Your task to perform on an android device: turn on javascript in the chrome app Image 0: 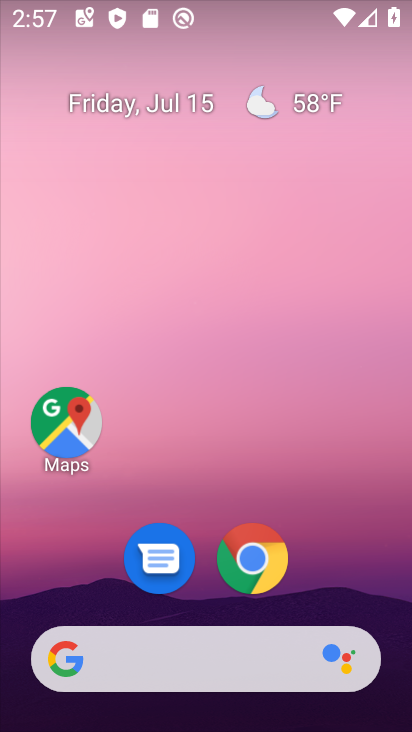
Step 0: drag from (374, 594) to (357, 145)
Your task to perform on an android device: turn on javascript in the chrome app Image 1: 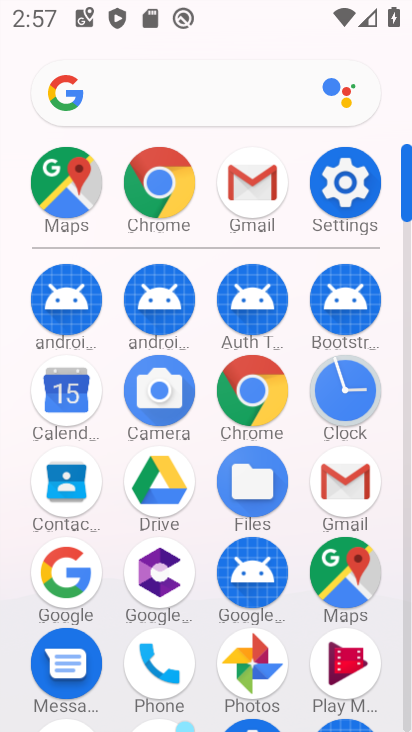
Step 1: click (256, 387)
Your task to perform on an android device: turn on javascript in the chrome app Image 2: 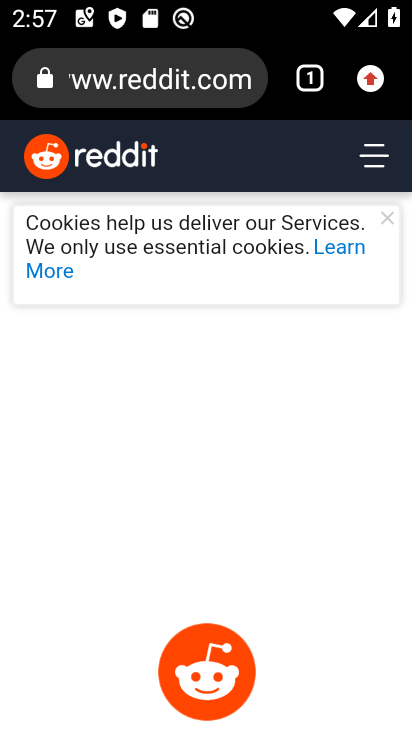
Step 2: click (371, 82)
Your task to perform on an android device: turn on javascript in the chrome app Image 3: 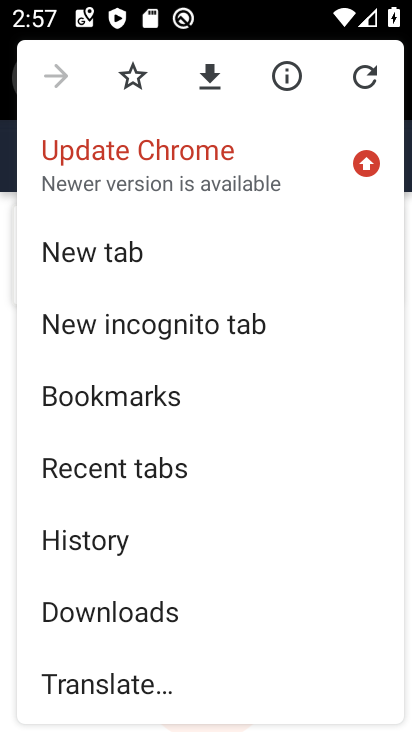
Step 3: drag from (285, 436) to (301, 355)
Your task to perform on an android device: turn on javascript in the chrome app Image 4: 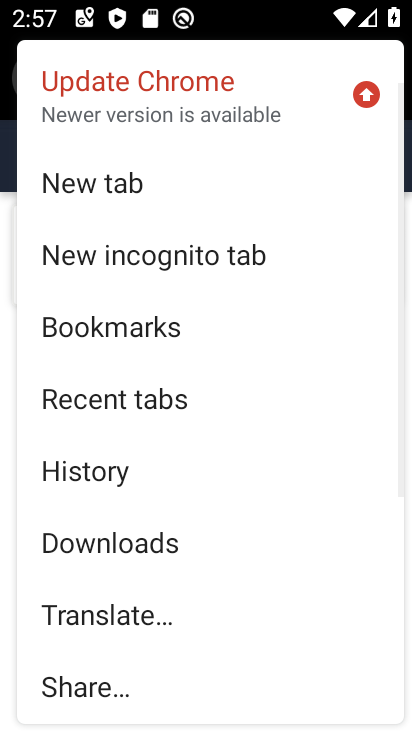
Step 4: drag from (311, 431) to (318, 353)
Your task to perform on an android device: turn on javascript in the chrome app Image 5: 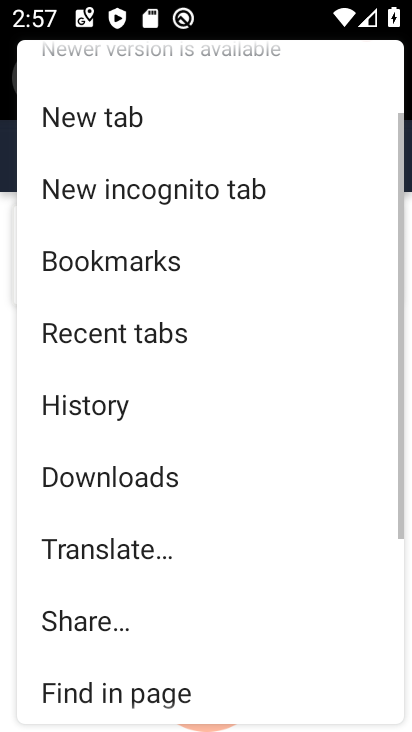
Step 5: drag from (304, 453) to (308, 356)
Your task to perform on an android device: turn on javascript in the chrome app Image 6: 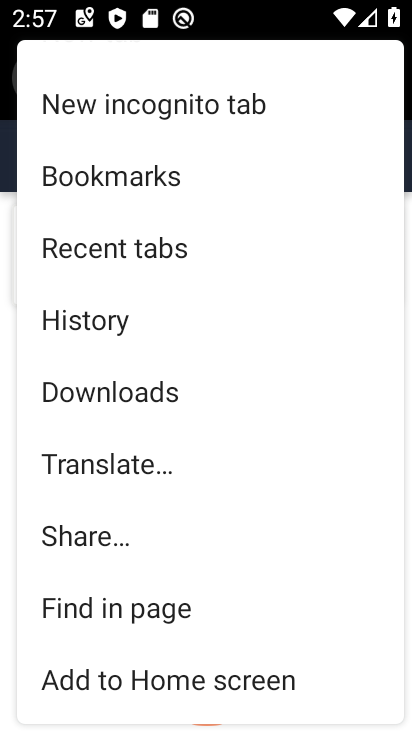
Step 6: drag from (313, 450) to (313, 353)
Your task to perform on an android device: turn on javascript in the chrome app Image 7: 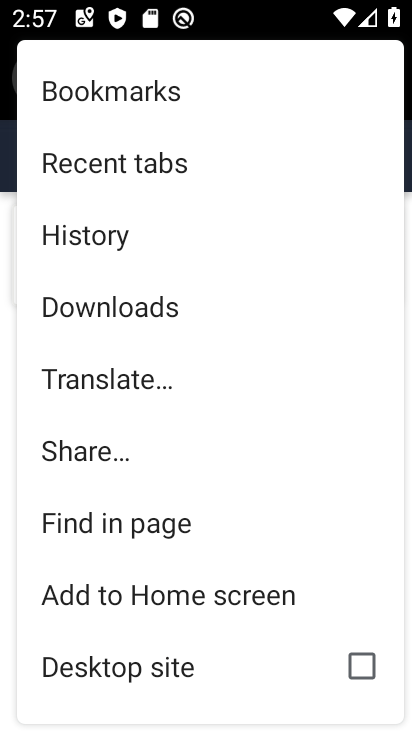
Step 7: drag from (304, 465) to (310, 387)
Your task to perform on an android device: turn on javascript in the chrome app Image 8: 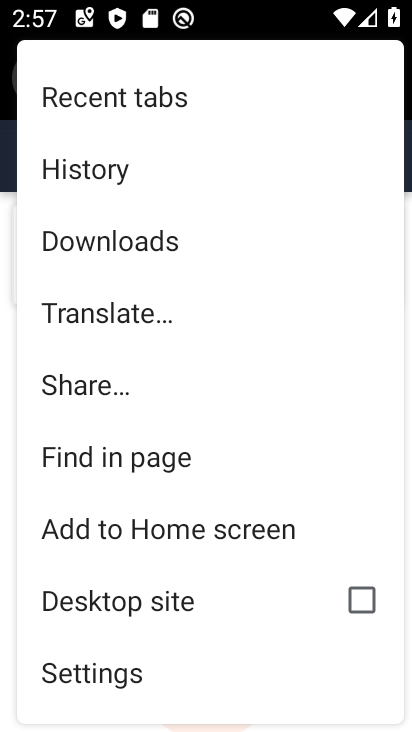
Step 8: drag from (308, 560) to (309, 423)
Your task to perform on an android device: turn on javascript in the chrome app Image 9: 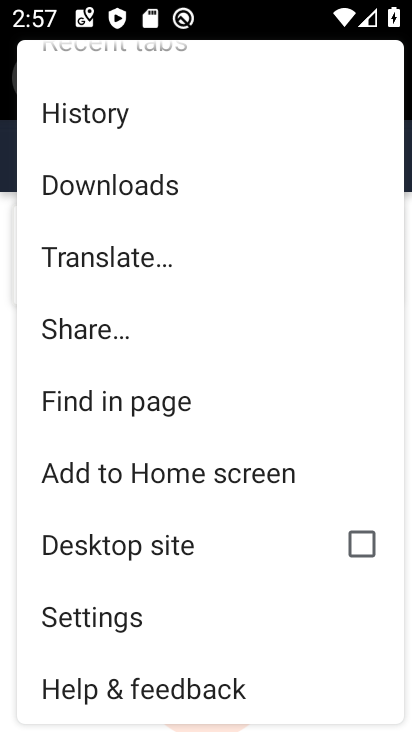
Step 9: click (183, 614)
Your task to perform on an android device: turn on javascript in the chrome app Image 10: 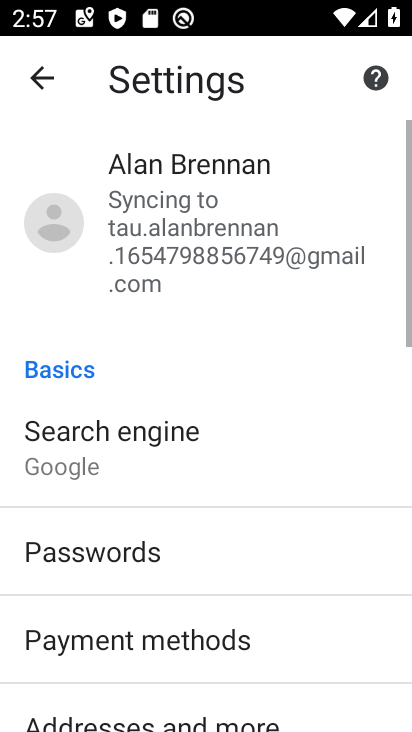
Step 10: drag from (314, 566) to (327, 493)
Your task to perform on an android device: turn on javascript in the chrome app Image 11: 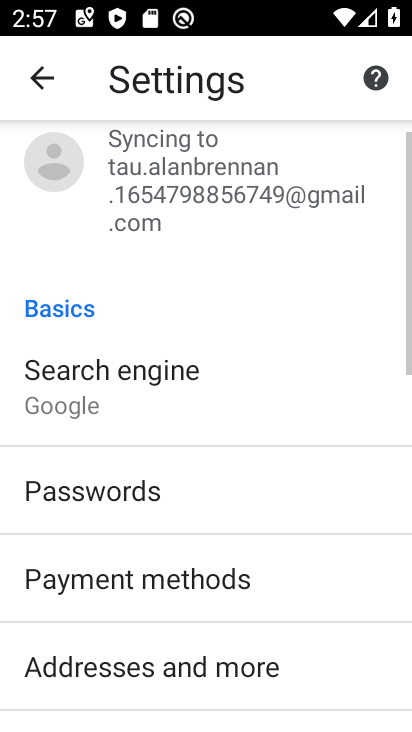
Step 11: drag from (325, 591) to (338, 506)
Your task to perform on an android device: turn on javascript in the chrome app Image 12: 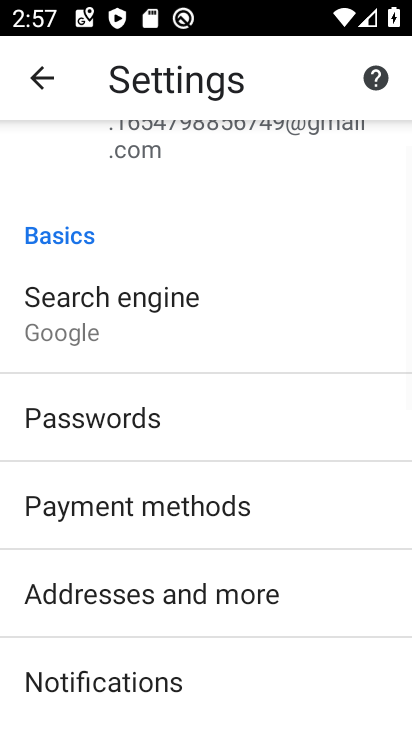
Step 12: drag from (339, 593) to (343, 514)
Your task to perform on an android device: turn on javascript in the chrome app Image 13: 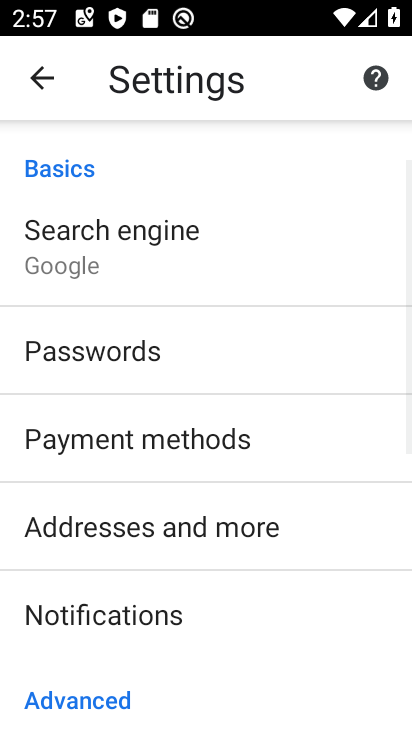
Step 13: drag from (345, 599) to (349, 506)
Your task to perform on an android device: turn on javascript in the chrome app Image 14: 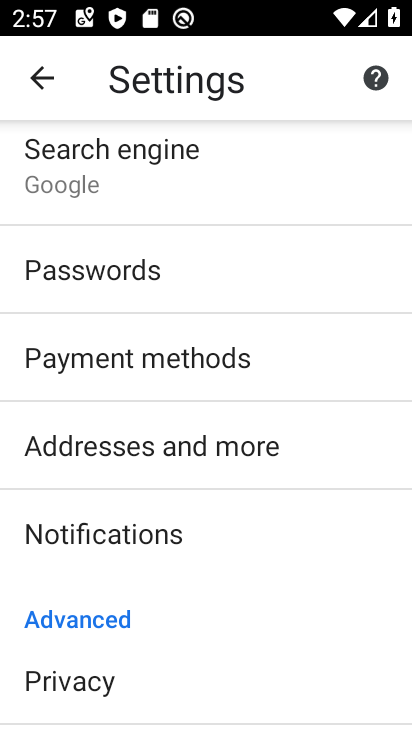
Step 14: drag from (338, 593) to (338, 497)
Your task to perform on an android device: turn on javascript in the chrome app Image 15: 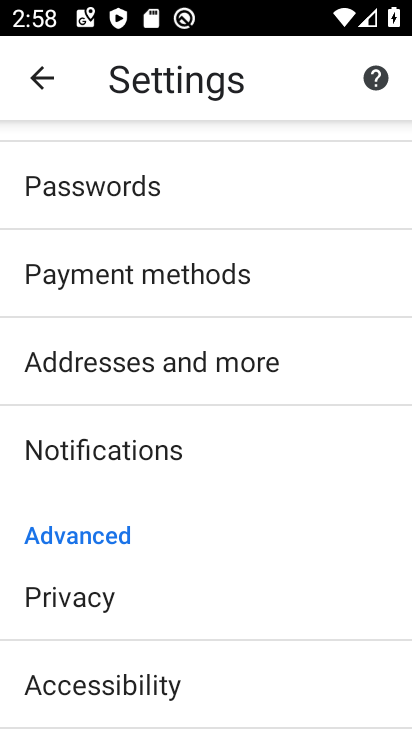
Step 15: drag from (333, 571) to (342, 468)
Your task to perform on an android device: turn on javascript in the chrome app Image 16: 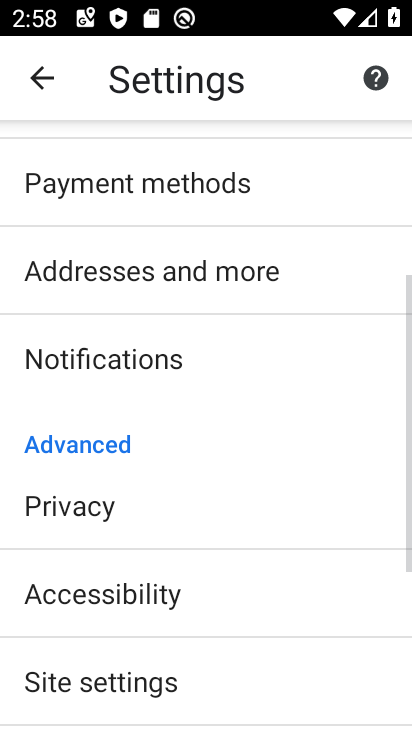
Step 16: drag from (331, 580) to (330, 468)
Your task to perform on an android device: turn on javascript in the chrome app Image 17: 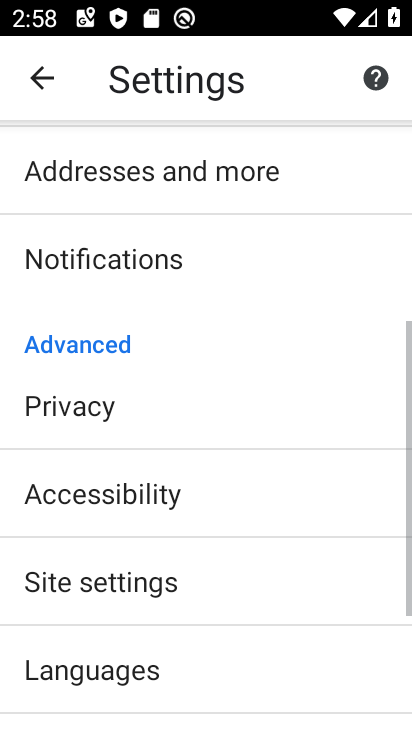
Step 17: click (312, 589)
Your task to perform on an android device: turn on javascript in the chrome app Image 18: 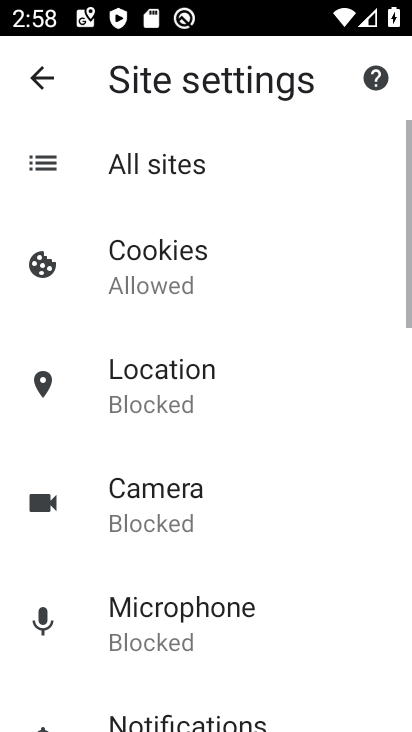
Step 18: drag from (312, 589) to (333, 493)
Your task to perform on an android device: turn on javascript in the chrome app Image 19: 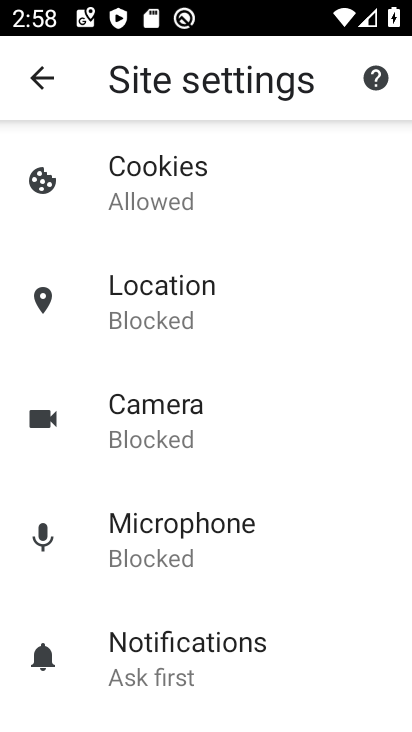
Step 19: drag from (327, 625) to (335, 499)
Your task to perform on an android device: turn on javascript in the chrome app Image 20: 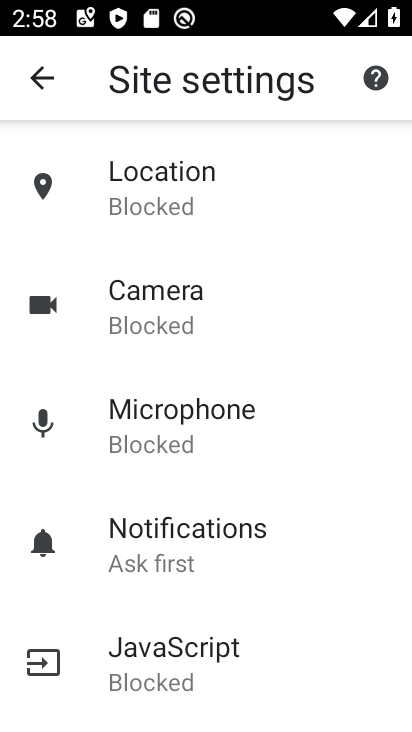
Step 20: drag from (337, 647) to (341, 493)
Your task to perform on an android device: turn on javascript in the chrome app Image 21: 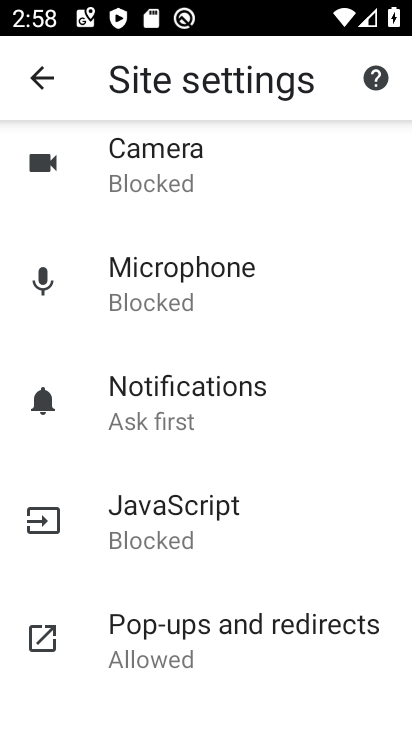
Step 21: click (296, 547)
Your task to perform on an android device: turn on javascript in the chrome app Image 22: 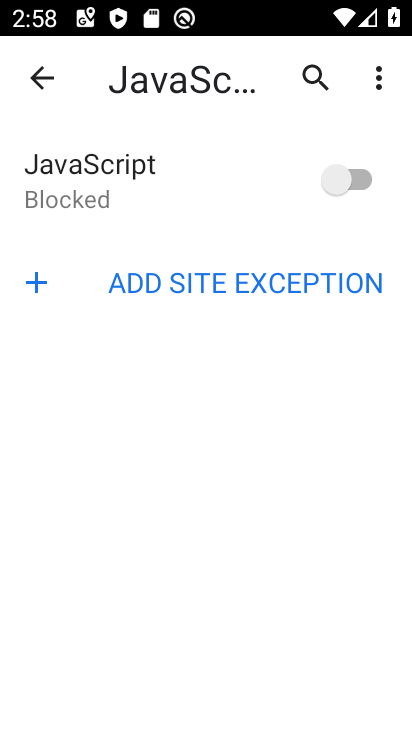
Step 22: click (346, 190)
Your task to perform on an android device: turn on javascript in the chrome app Image 23: 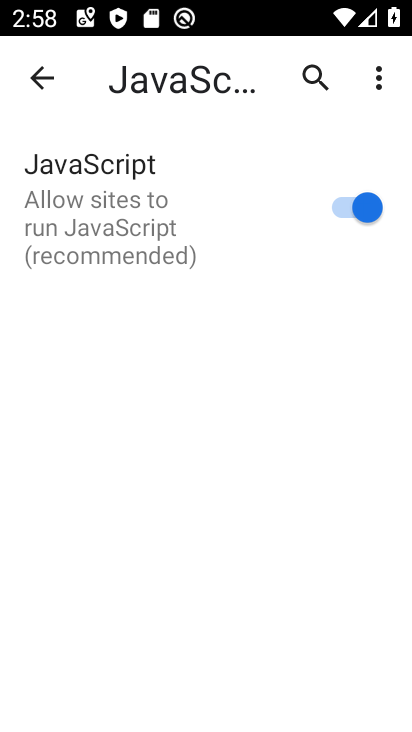
Step 23: task complete